Your task to perform on an android device: Open location settings Image 0: 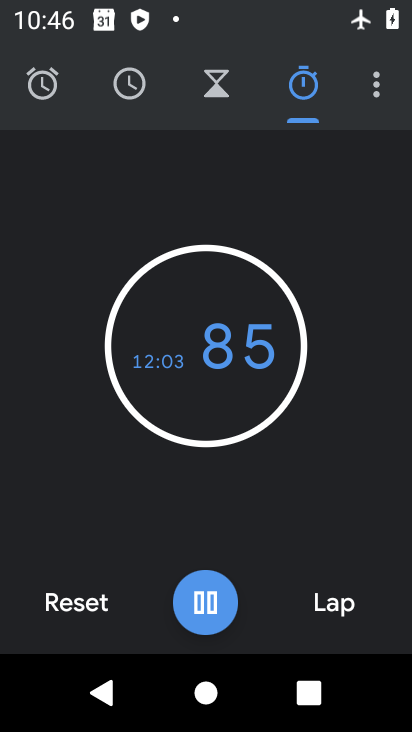
Step 0: press home button
Your task to perform on an android device: Open location settings Image 1: 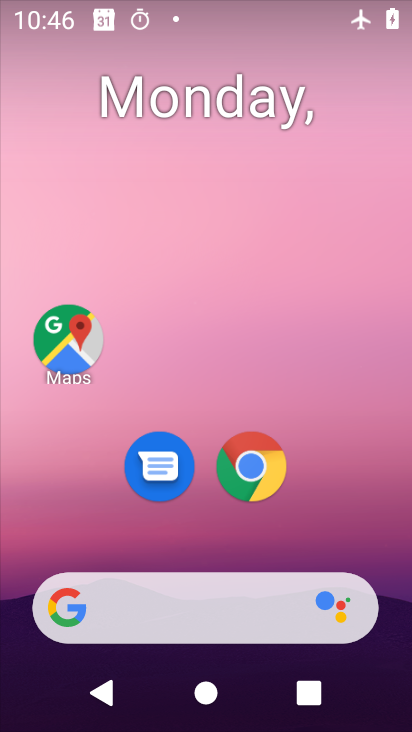
Step 1: drag from (296, 460) to (306, 76)
Your task to perform on an android device: Open location settings Image 2: 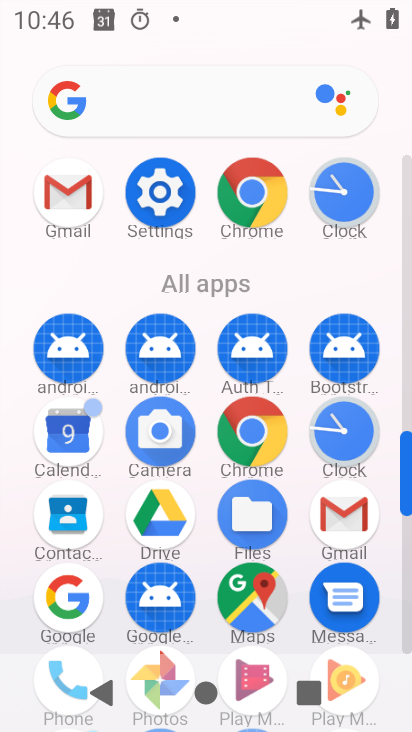
Step 2: click (163, 197)
Your task to perform on an android device: Open location settings Image 3: 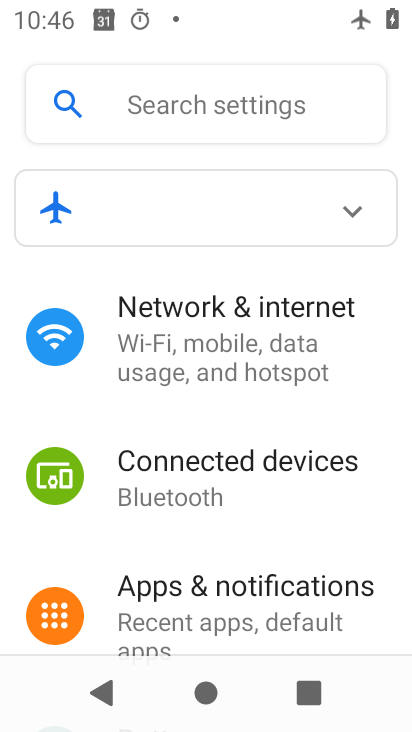
Step 3: drag from (205, 537) to (286, 191)
Your task to perform on an android device: Open location settings Image 4: 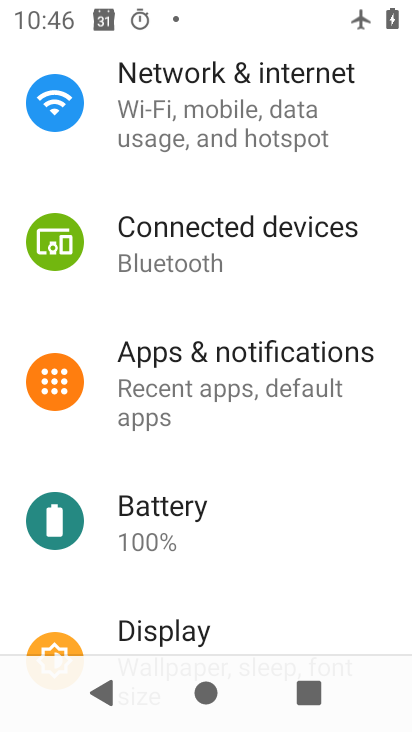
Step 4: drag from (243, 556) to (294, 205)
Your task to perform on an android device: Open location settings Image 5: 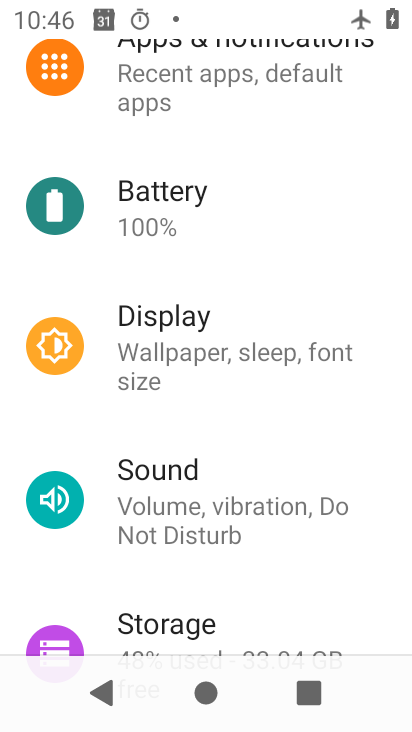
Step 5: drag from (207, 496) to (264, 135)
Your task to perform on an android device: Open location settings Image 6: 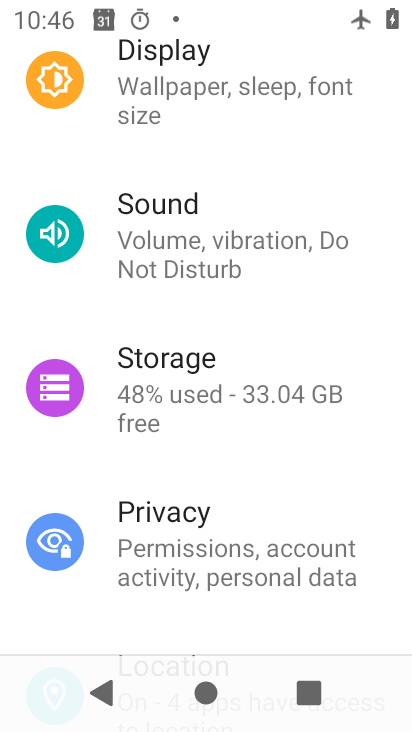
Step 6: drag from (197, 511) to (254, 154)
Your task to perform on an android device: Open location settings Image 7: 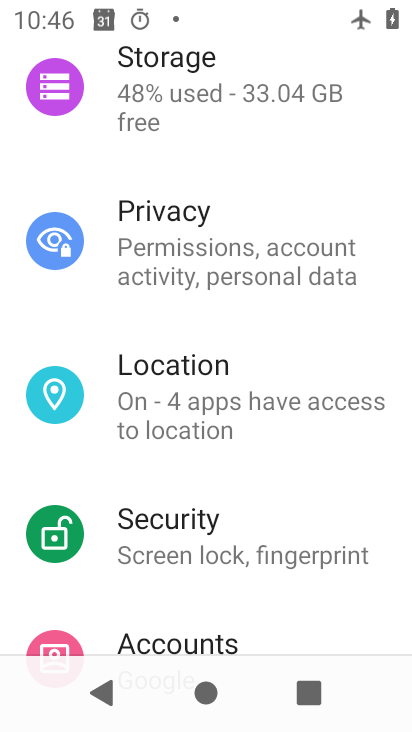
Step 7: click (219, 401)
Your task to perform on an android device: Open location settings Image 8: 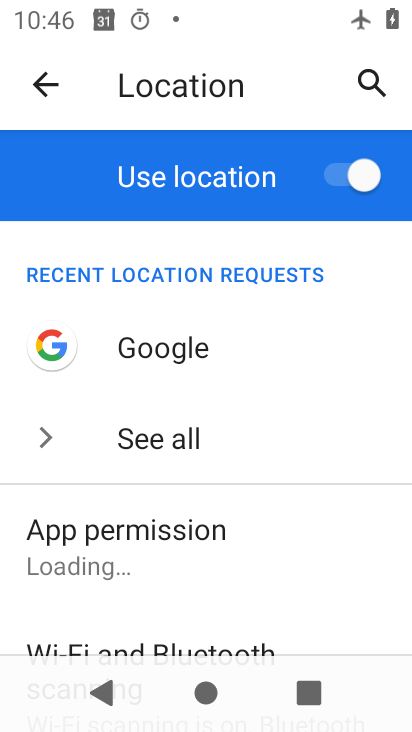
Step 8: task complete